Your task to perform on an android device: Open calendar and show me the third week of next month Image 0: 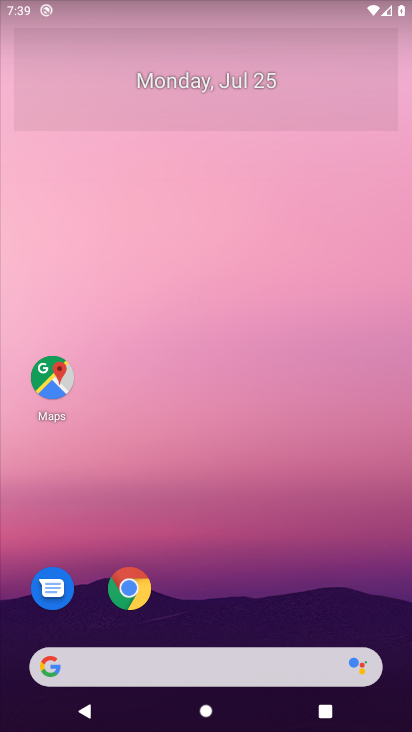
Step 0: drag from (290, 530) to (308, 11)
Your task to perform on an android device: Open calendar and show me the third week of next month Image 1: 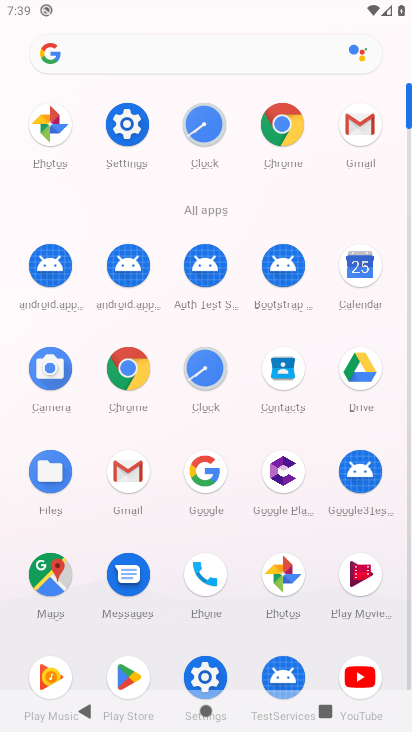
Step 1: click (355, 267)
Your task to perform on an android device: Open calendar and show me the third week of next month Image 2: 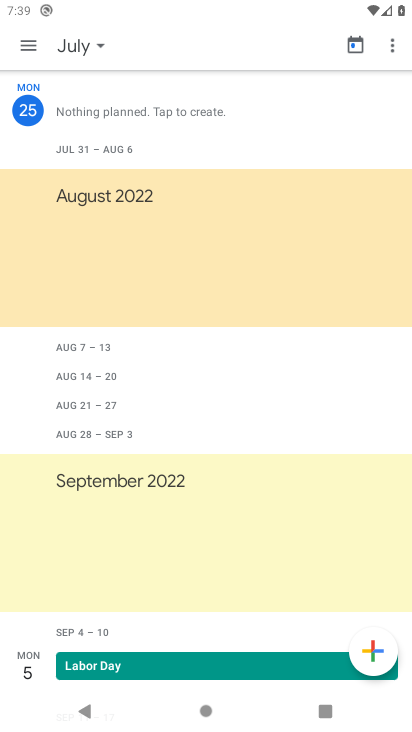
Step 2: press home button
Your task to perform on an android device: Open calendar and show me the third week of next month Image 3: 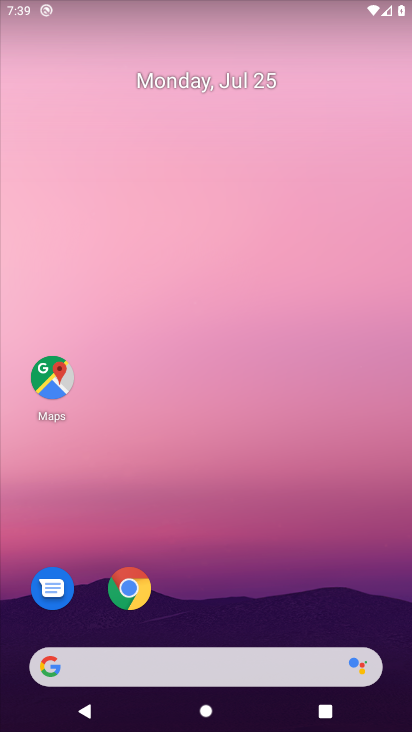
Step 3: drag from (331, 559) to (256, 91)
Your task to perform on an android device: Open calendar and show me the third week of next month Image 4: 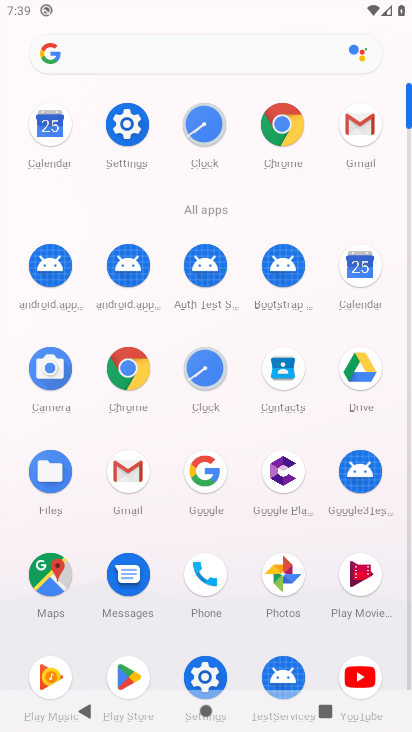
Step 4: click (362, 270)
Your task to perform on an android device: Open calendar and show me the third week of next month Image 5: 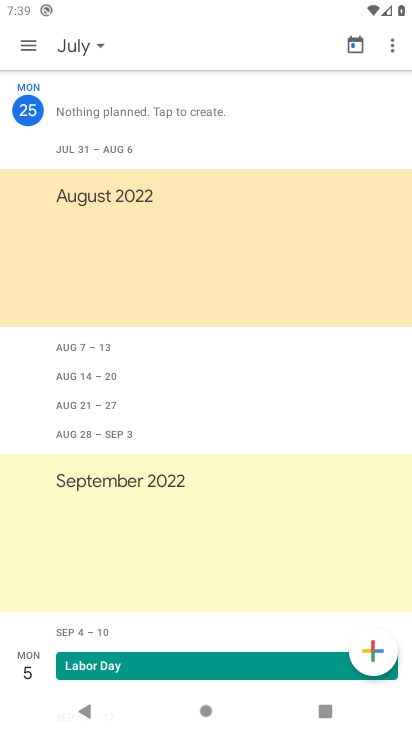
Step 5: task complete